Your task to perform on an android device: Go to Google Image 0: 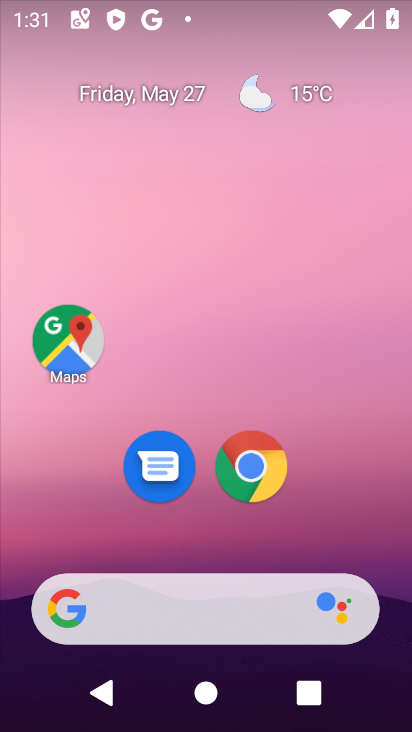
Step 0: drag from (78, 580) to (241, 33)
Your task to perform on an android device: Go to Google Image 1: 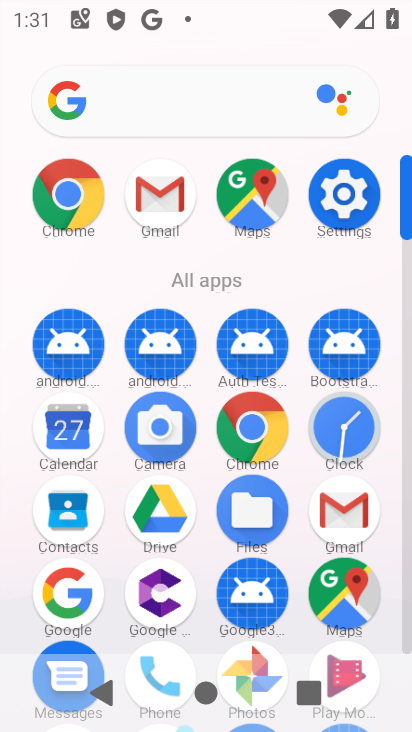
Step 1: click (74, 606)
Your task to perform on an android device: Go to Google Image 2: 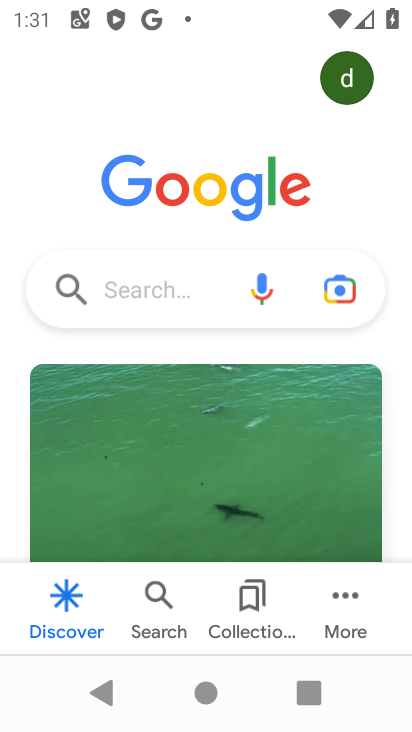
Step 2: task complete